Your task to perform on an android device: Go to location settings Image 0: 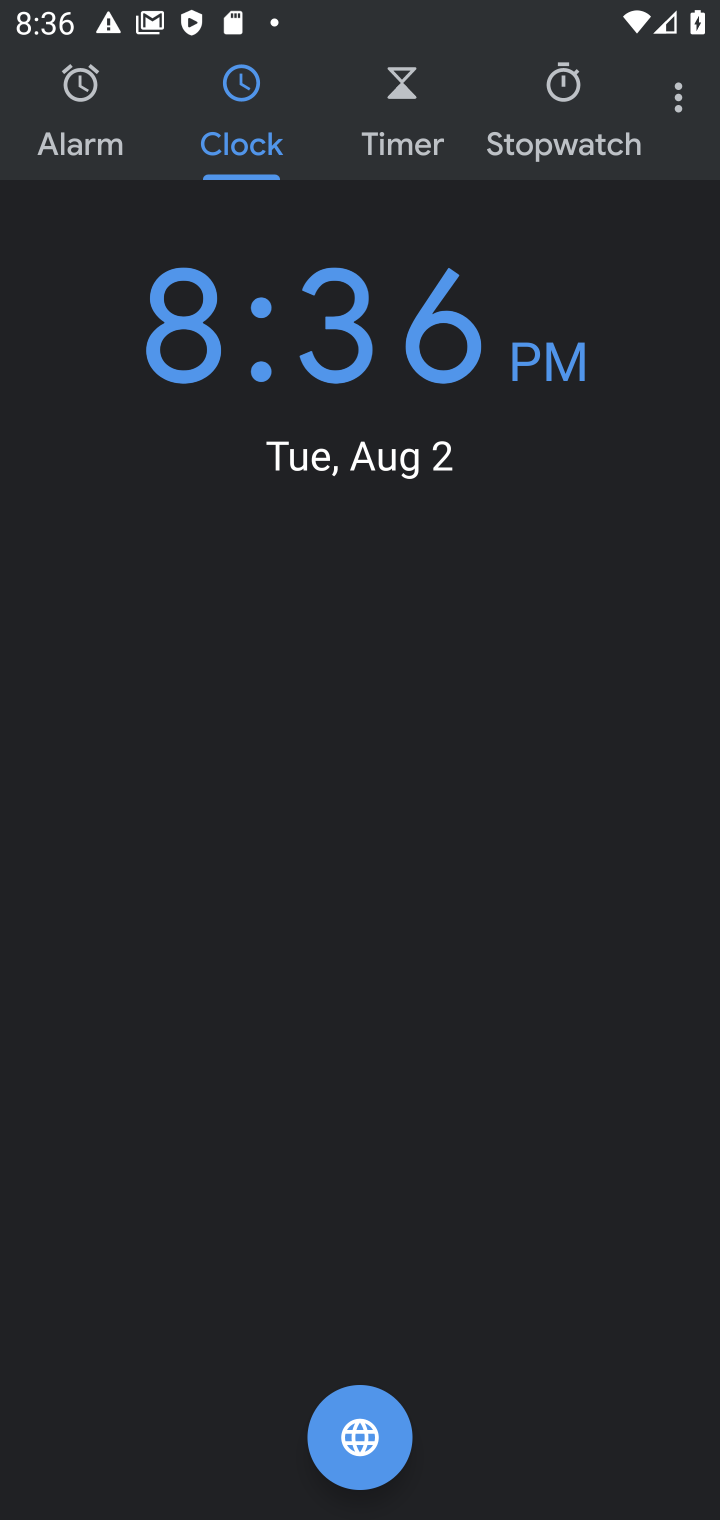
Step 0: press home button
Your task to perform on an android device: Go to location settings Image 1: 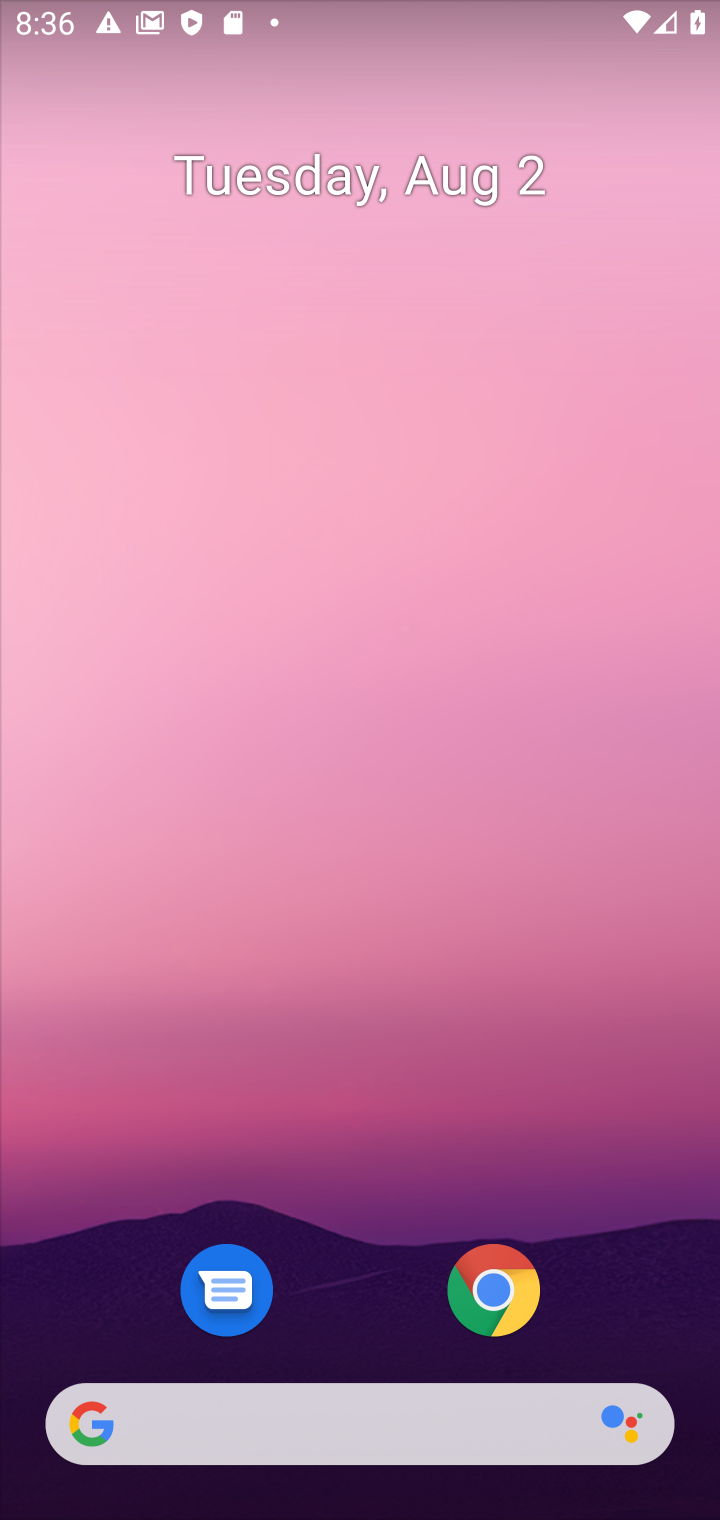
Step 1: drag from (662, 1327) to (570, 448)
Your task to perform on an android device: Go to location settings Image 2: 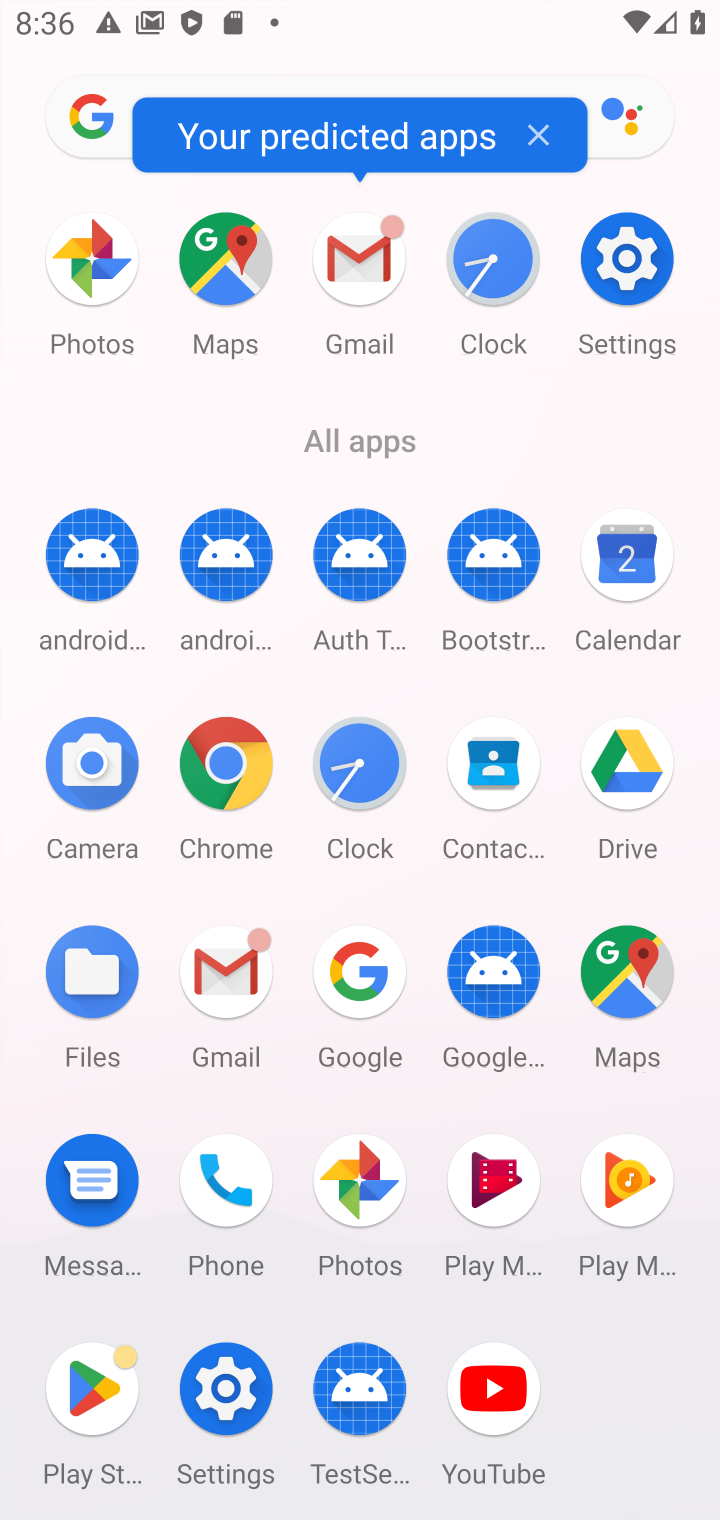
Step 2: click (224, 1381)
Your task to perform on an android device: Go to location settings Image 3: 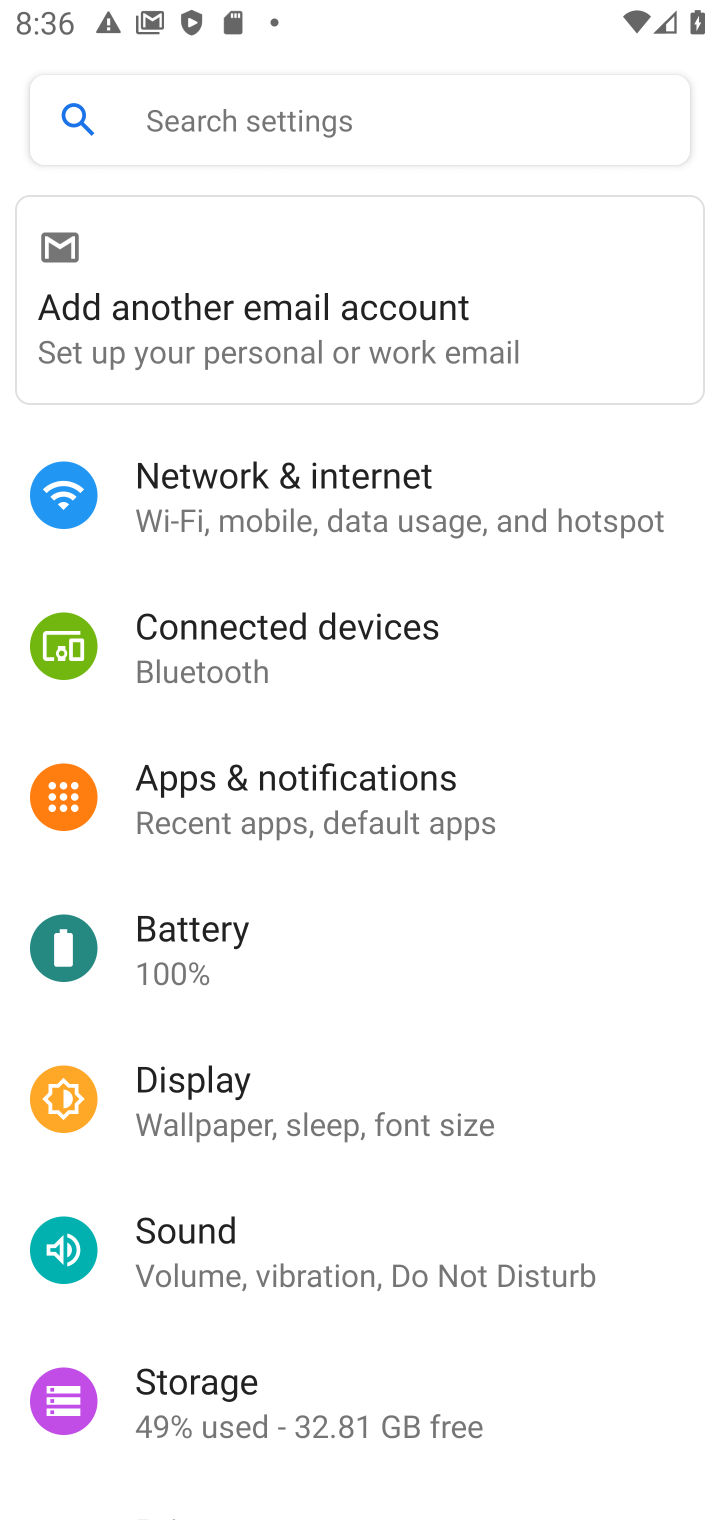
Step 3: drag from (344, 1359) to (342, 772)
Your task to perform on an android device: Go to location settings Image 4: 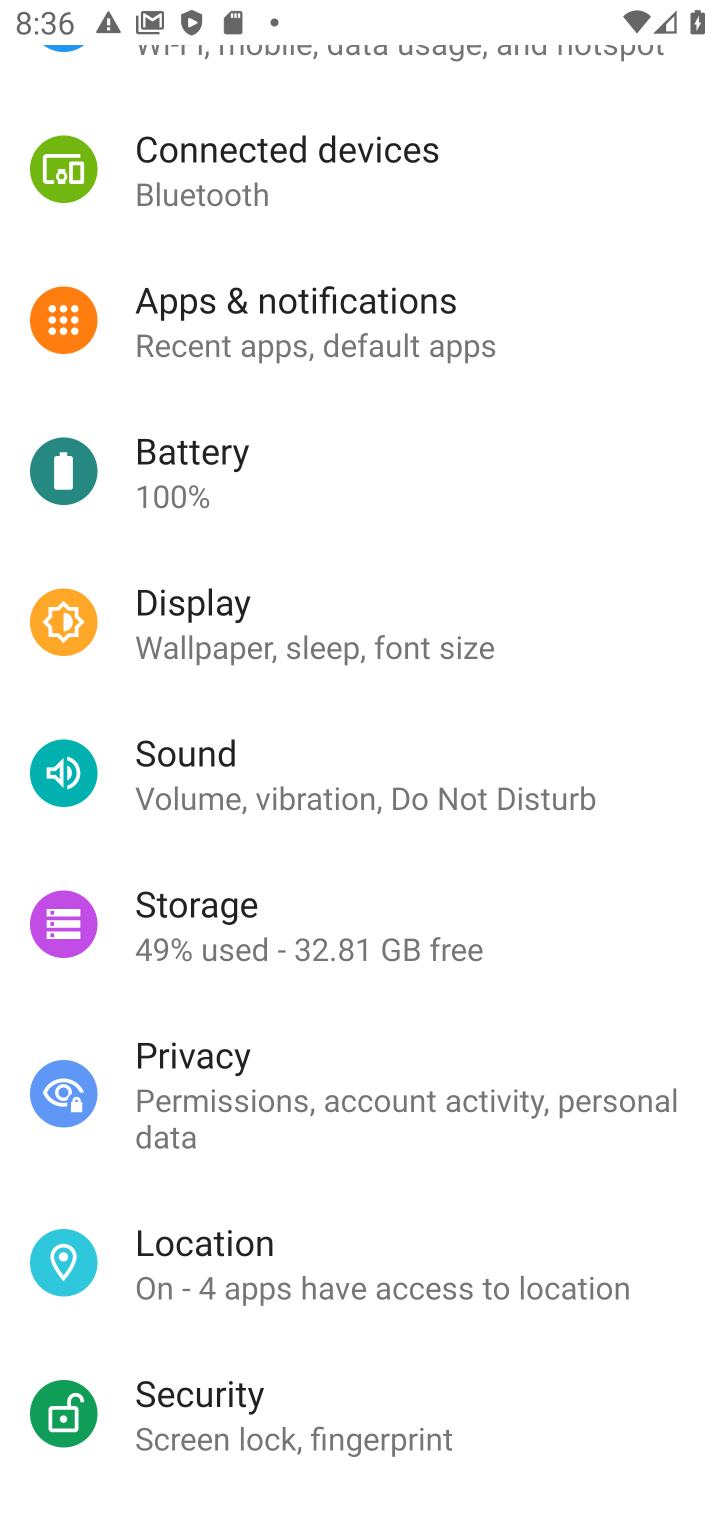
Step 4: click (264, 1249)
Your task to perform on an android device: Go to location settings Image 5: 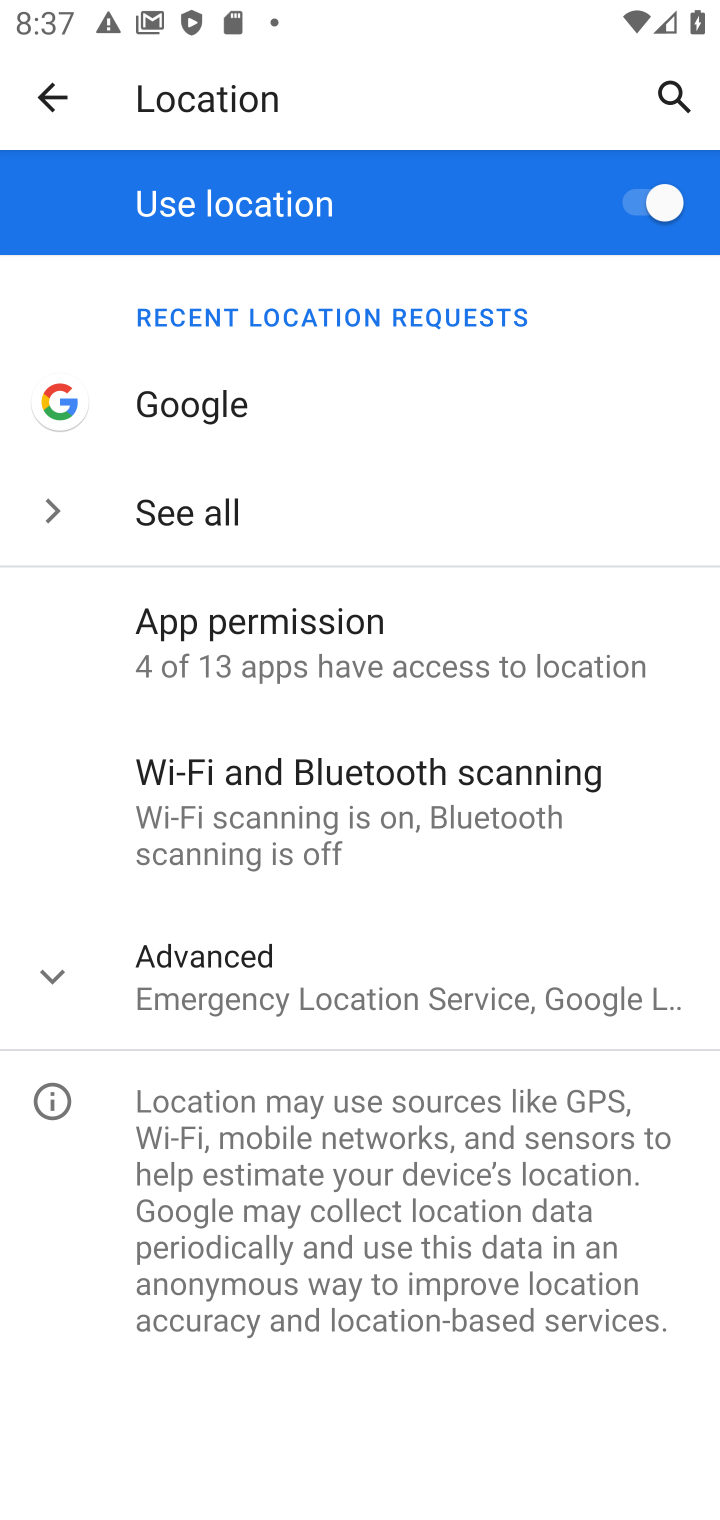
Step 5: click (47, 981)
Your task to perform on an android device: Go to location settings Image 6: 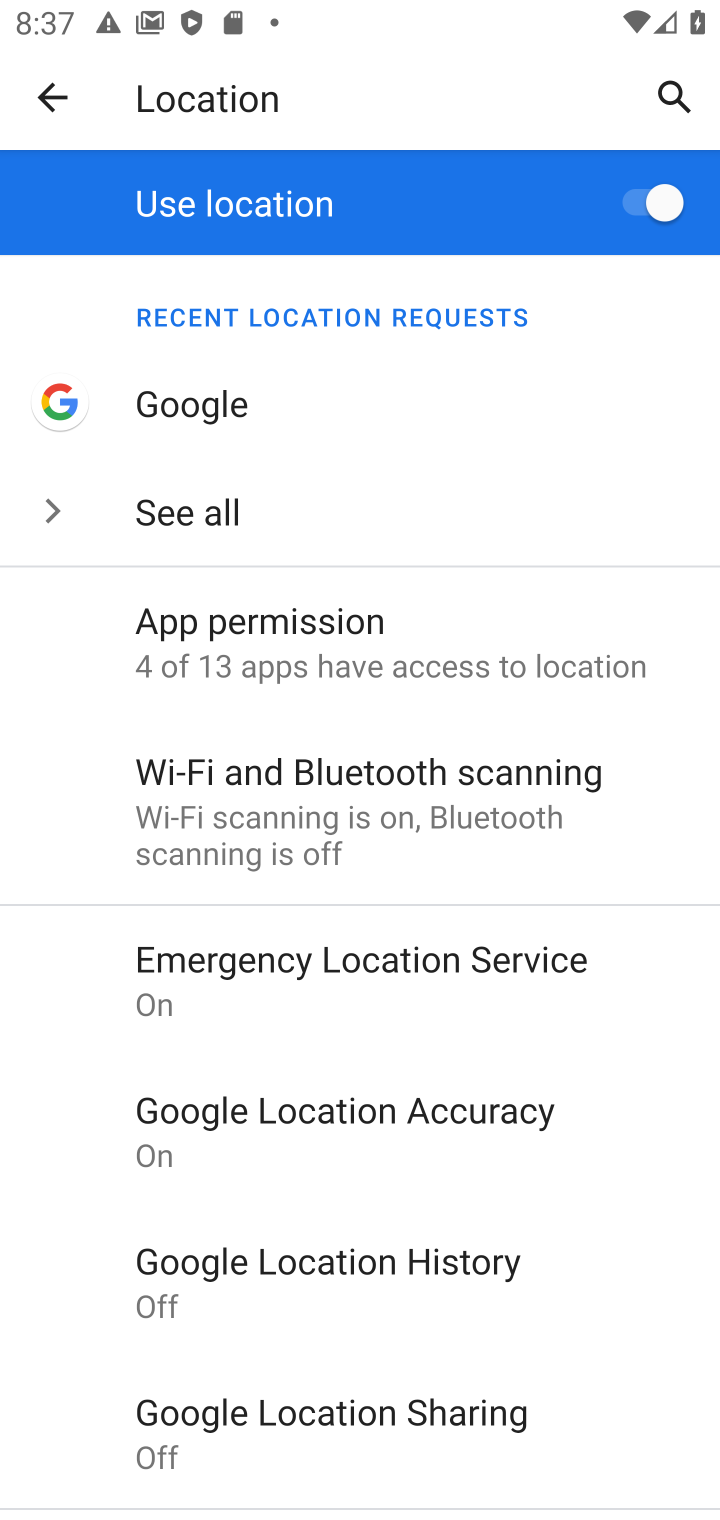
Step 6: task complete